Your task to perform on an android device: Clear all items from cart on walmart.com. Add amazon basics triple a to the cart on walmart.com, then select checkout. Image 0: 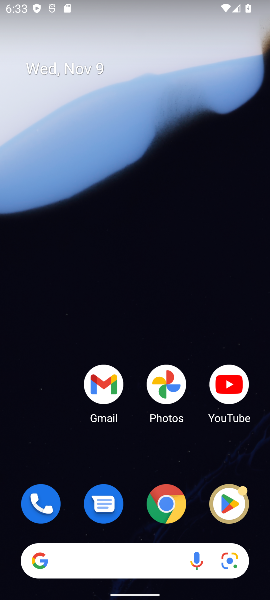
Step 0: click (174, 512)
Your task to perform on an android device: Clear all items from cart on walmart.com. Add amazon basics triple a to the cart on walmart.com, then select checkout. Image 1: 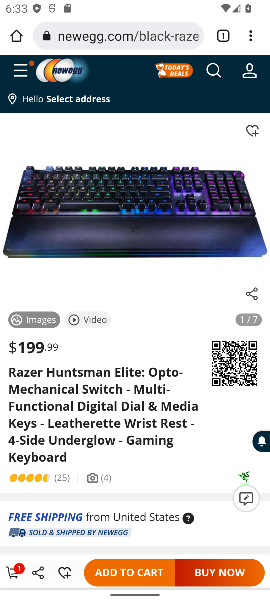
Step 1: click (119, 42)
Your task to perform on an android device: Clear all items from cart on walmart.com. Add amazon basics triple a to the cart on walmart.com, then select checkout. Image 2: 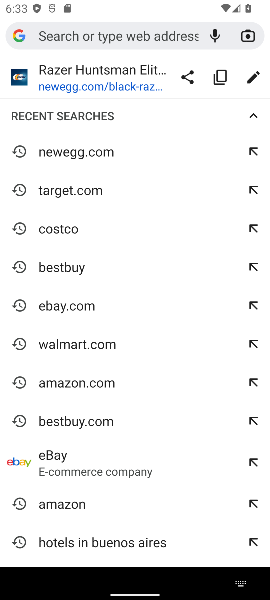
Step 2: type "walmart"
Your task to perform on an android device: Clear all items from cart on walmart.com. Add amazon basics triple a to the cart on walmart.com, then select checkout. Image 3: 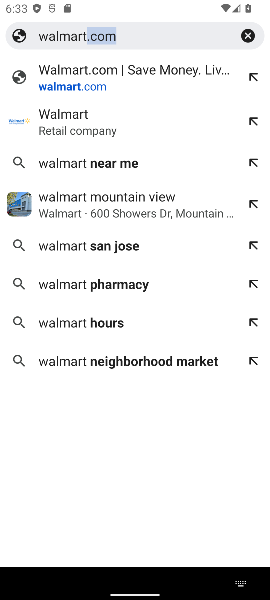
Step 3: click (156, 75)
Your task to perform on an android device: Clear all items from cart on walmart.com. Add amazon basics triple a to the cart on walmart.com, then select checkout. Image 4: 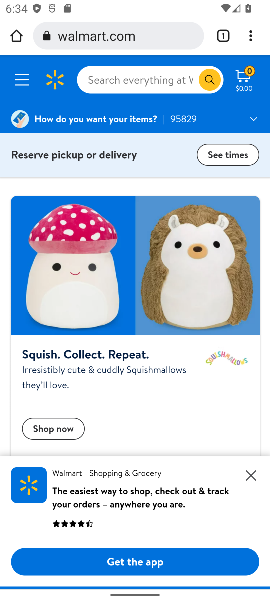
Step 4: click (165, 85)
Your task to perform on an android device: Clear all items from cart on walmart.com. Add amazon basics triple a to the cart on walmart.com, then select checkout. Image 5: 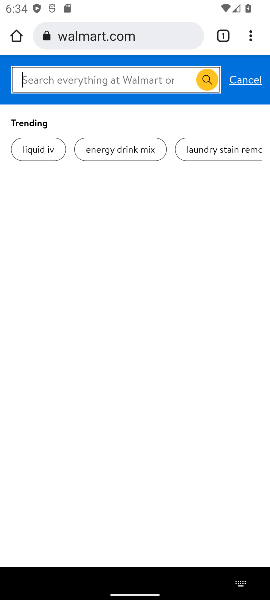
Step 5: type "amazon basics aaa"
Your task to perform on an android device: Clear all items from cart on walmart.com. Add amazon basics triple a to the cart on walmart.com, then select checkout. Image 6: 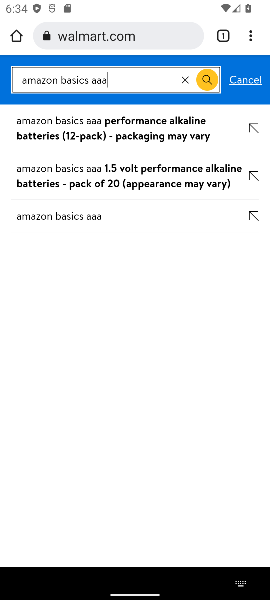
Step 6: press enter
Your task to perform on an android device: Clear all items from cart on walmart.com. Add amazon basics triple a to the cart on walmart.com, then select checkout. Image 7: 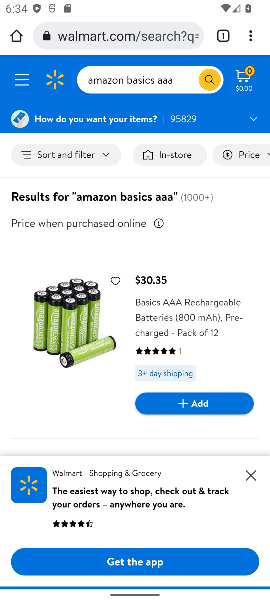
Step 7: click (174, 407)
Your task to perform on an android device: Clear all items from cart on walmart.com. Add amazon basics triple a to the cart on walmart.com, then select checkout. Image 8: 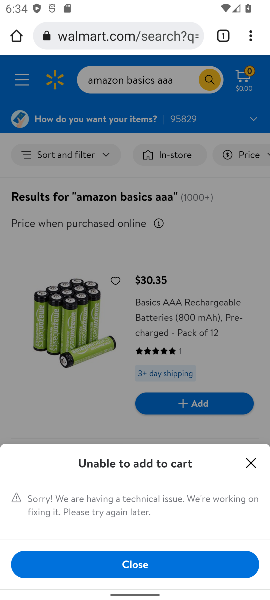
Step 8: click (246, 462)
Your task to perform on an android device: Clear all items from cart on walmart.com. Add amazon basics triple a to the cart on walmart.com, then select checkout. Image 9: 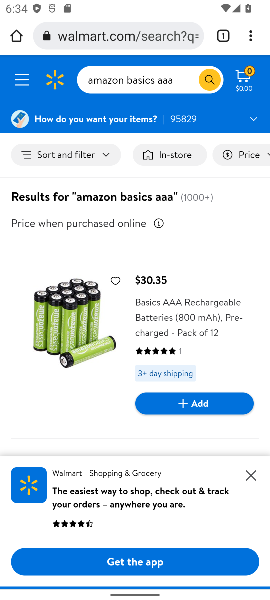
Step 9: click (185, 413)
Your task to perform on an android device: Clear all items from cart on walmart.com. Add amazon basics triple a to the cart on walmart.com, then select checkout. Image 10: 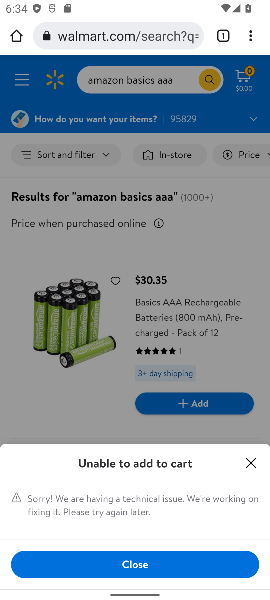
Step 10: task complete